Your task to perform on an android device: Open Yahoo.com Image 0: 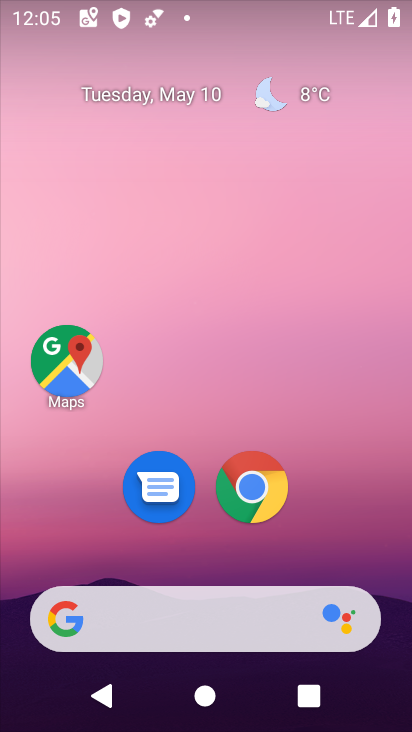
Step 0: click (255, 480)
Your task to perform on an android device: Open Yahoo.com Image 1: 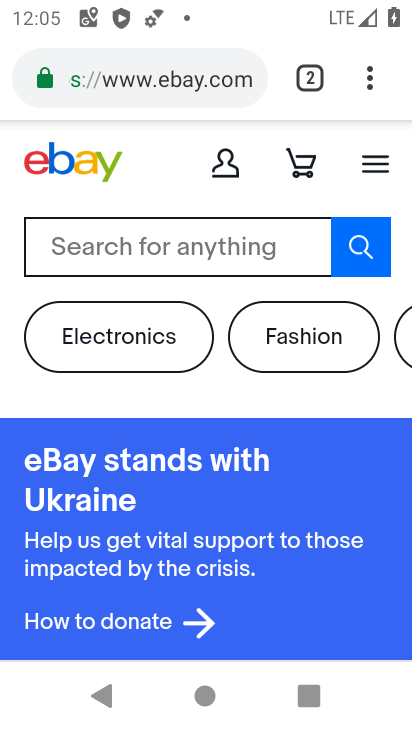
Step 1: click (307, 80)
Your task to perform on an android device: Open Yahoo.com Image 2: 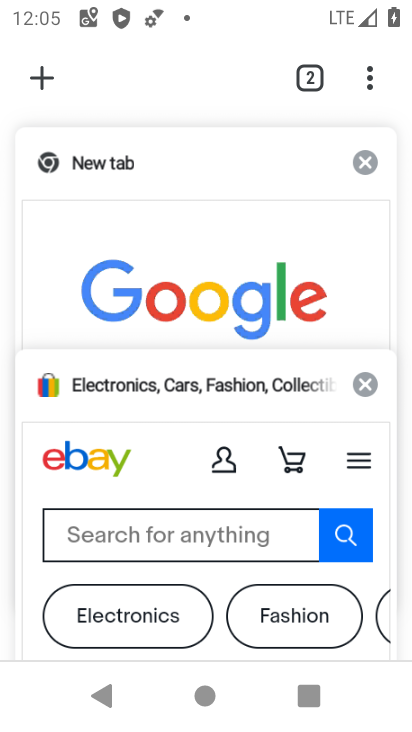
Step 2: click (369, 382)
Your task to perform on an android device: Open Yahoo.com Image 3: 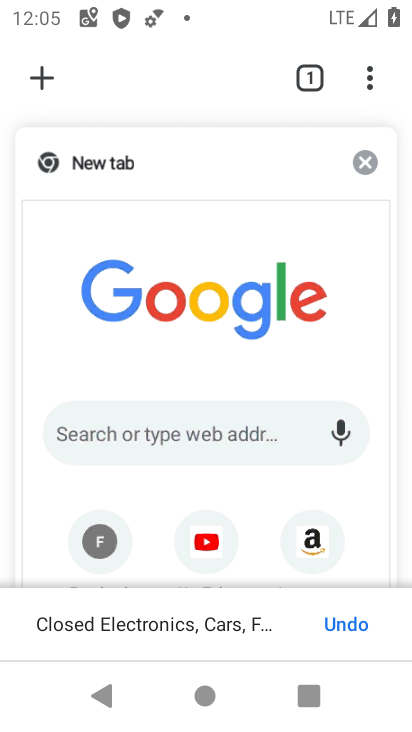
Step 3: click (178, 251)
Your task to perform on an android device: Open Yahoo.com Image 4: 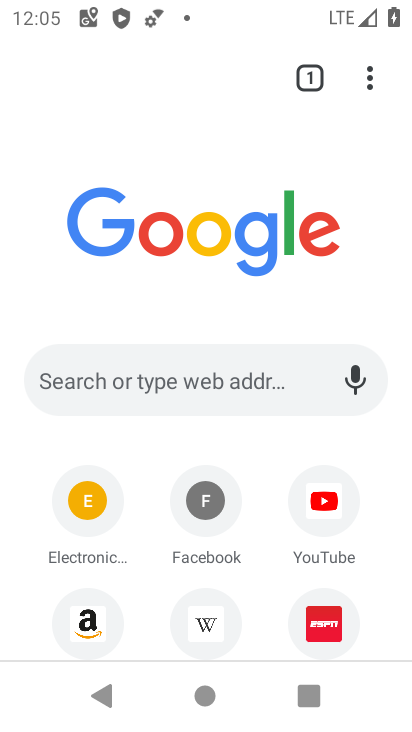
Step 4: click (163, 368)
Your task to perform on an android device: Open Yahoo.com Image 5: 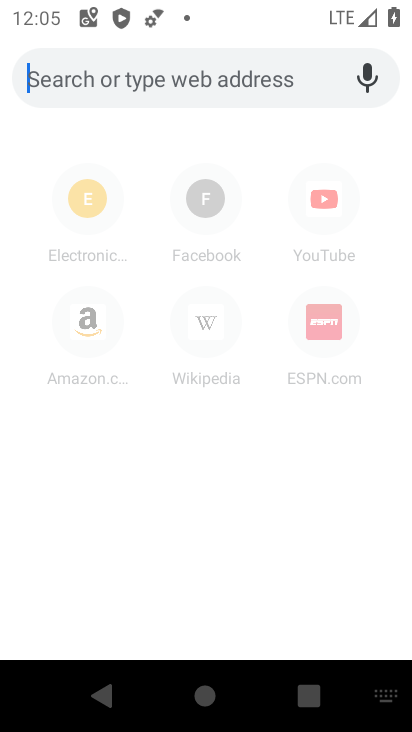
Step 5: type "yahoo.com"
Your task to perform on an android device: Open Yahoo.com Image 6: 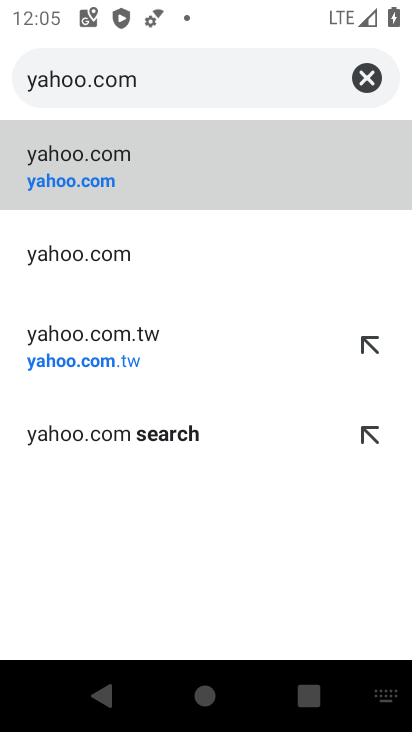
Step 6: click (145, 175)
Your task to perform on an android device: Open Yahoo.com Image 7: 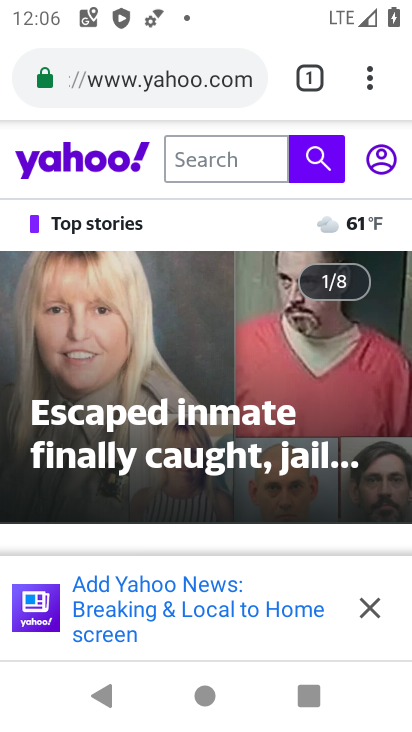
Step 7: click (365, 607)
Your task to perform on an android device: Open Yahoo.com Image 8: 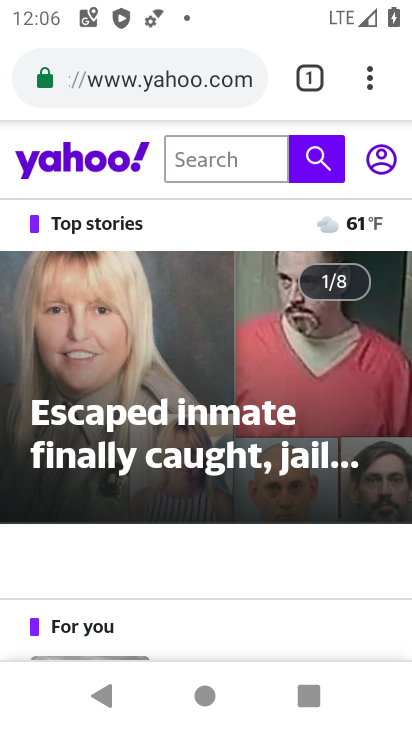
Step 8: task complete